Your task to perform on an android device: Find coffee shops on Maps Image 0: 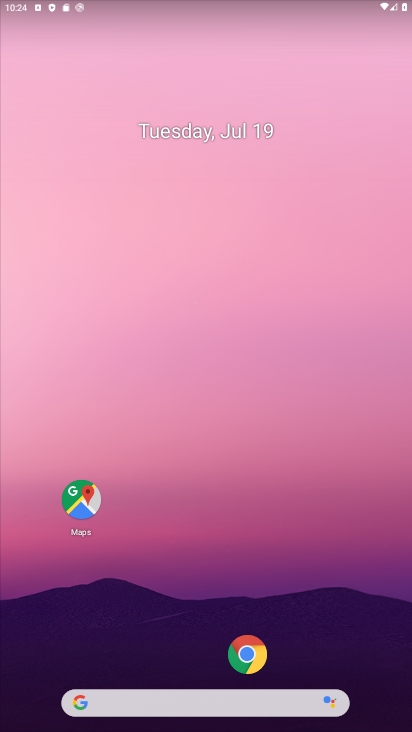
Step 0: click (87, 501)
Your task to perform on an android device: Find coffee shops on Maps Image 1: 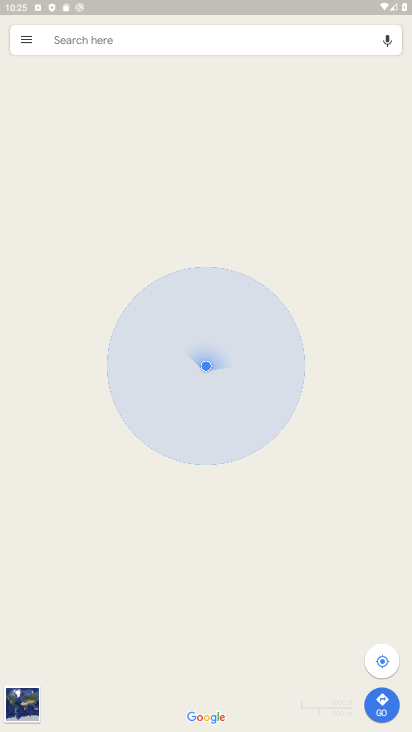
Step 1: click (144, 31)
Your task to perform on an android device: Find coffee shops on Maps Image 2: 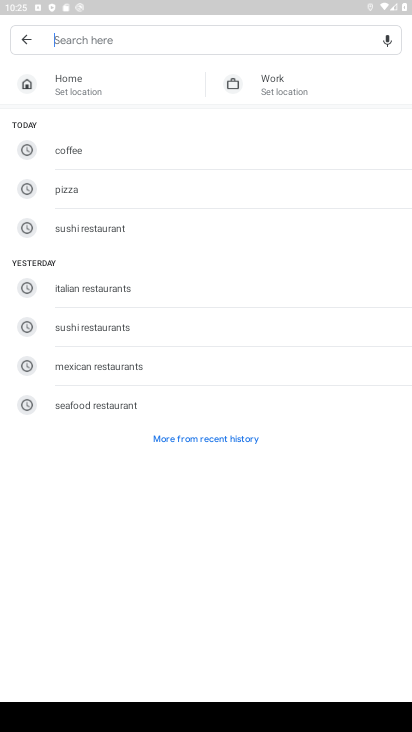
Step 2: type "coffee"
Your task to perform on an android device: Find coffee shops on Maps Image 3: 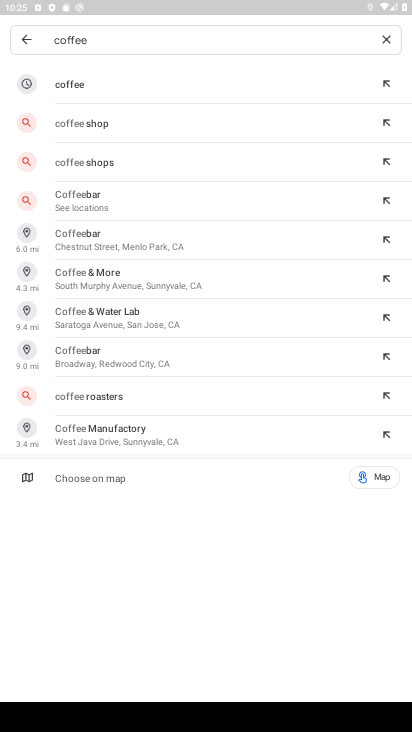
Step 3: click (210, 126)
Your task to perform on an android device: Find coffee shops on Maps Image 4: 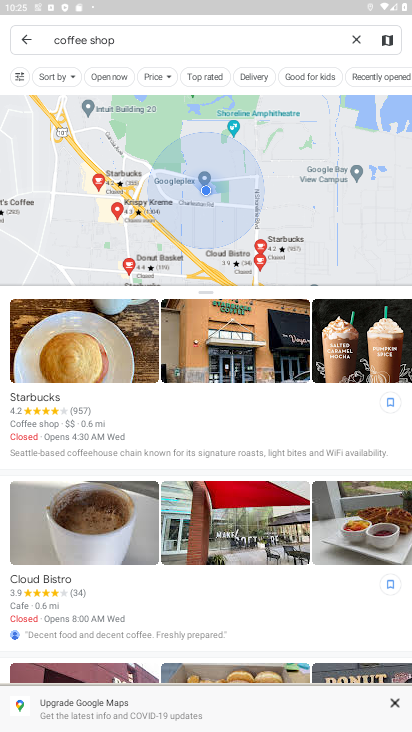
Step 4: task complete